Your task to perform on an android device: Open Android settings Image 0: 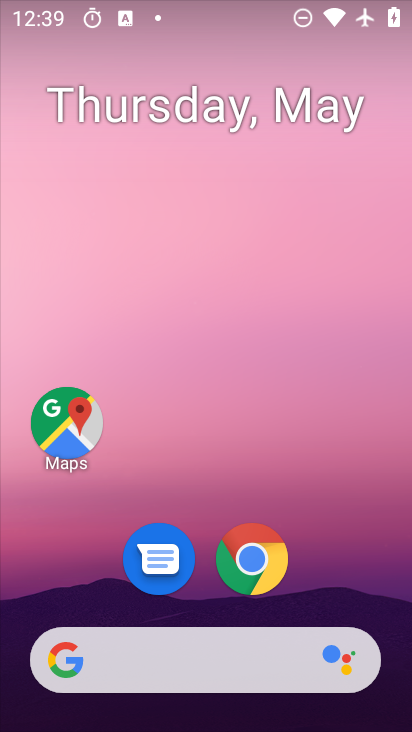
Step 0: drag from (354, 598) to (349, 345)
Your task to perform on an android device: Open Android settings Image 1: 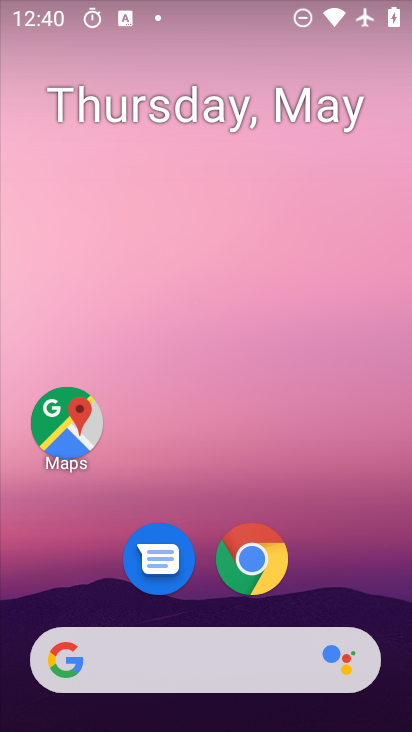
Step 1: drag from (308, 594) to (298, 305)
Your task to perform on an android device: Open Android settings Image 2: 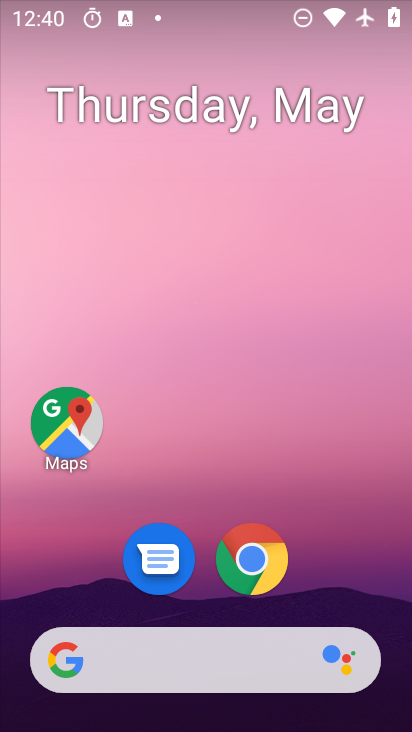
Step 2: drag from (333, 677) to (382, 20)
Your task to perform on an android device: Open Android settings Image 3: 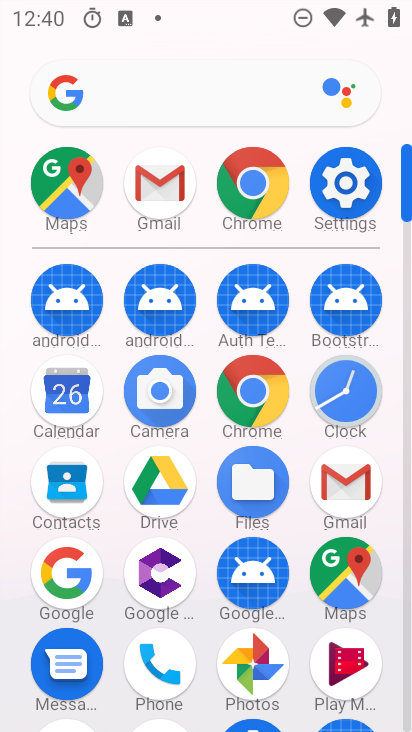
Step 3: click (347, 201)
Your task to perform on an android device: Open Android settings Image 4: 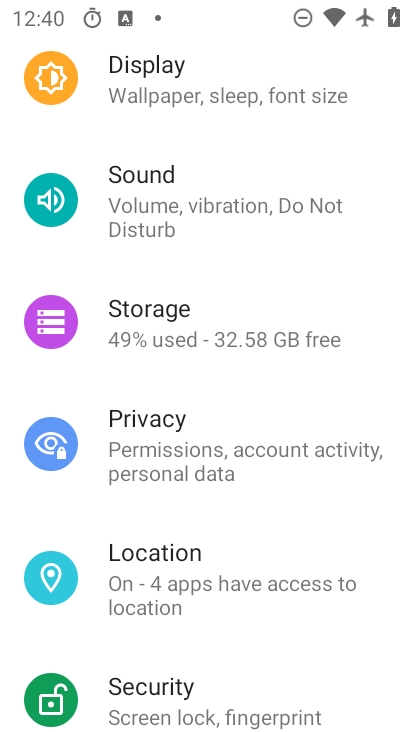
Step 4: drag from (262, 567) to (272, 368)
Your task to perform on an android device: Open Android settings Image 5: 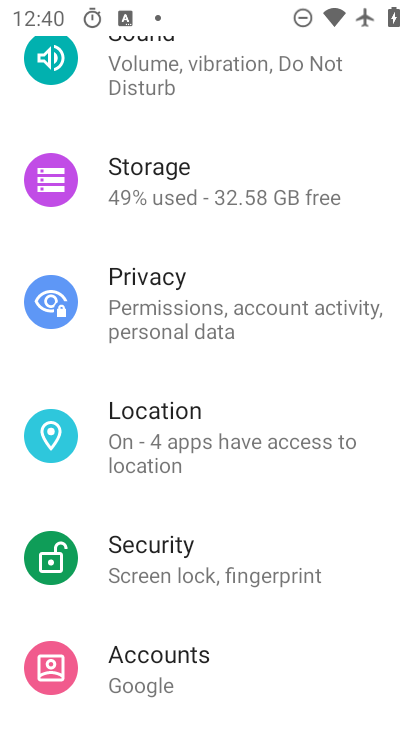
Step 5: drag from (279, 587) to (320, 275)
Your task to perform on an android device: Open Android settings Image 6: 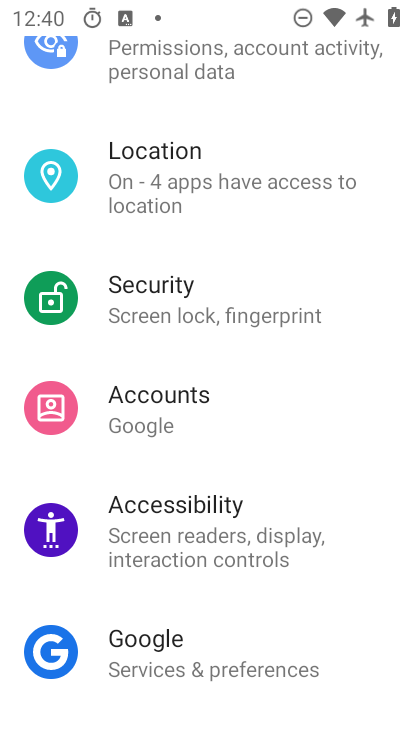
Step 6: drag from (289, 565) to (315, 262)
Your task to perform on an android device: Open Android settings Image 7: 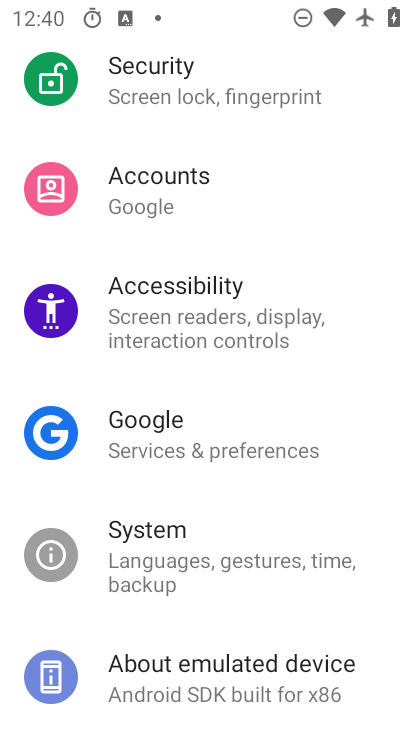
Step 7: drag from (275, 568) to (296, 310)
Your task to perform on an android device: Open Android settings Image 8: 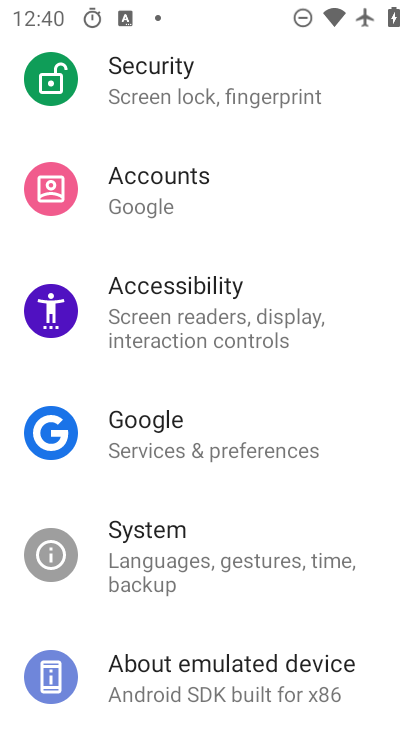
Step 8: click (229, 671)
Your task to perform on an android device: Open Android settings Image 9: 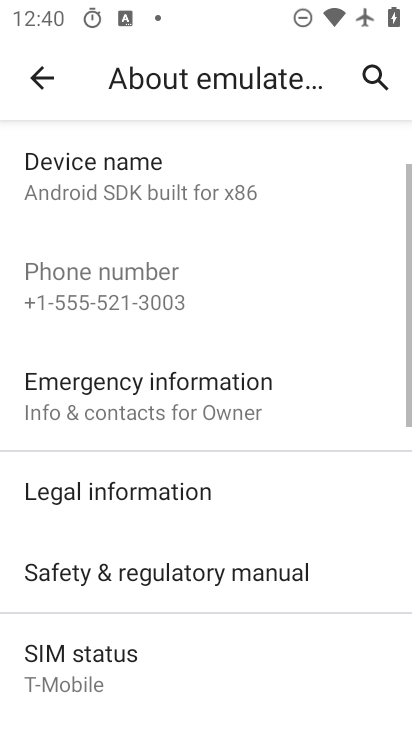
Step 9: drag from (229, 671) to (254, 448)
Your task to perform on an android device: Open Android settings Image 10: 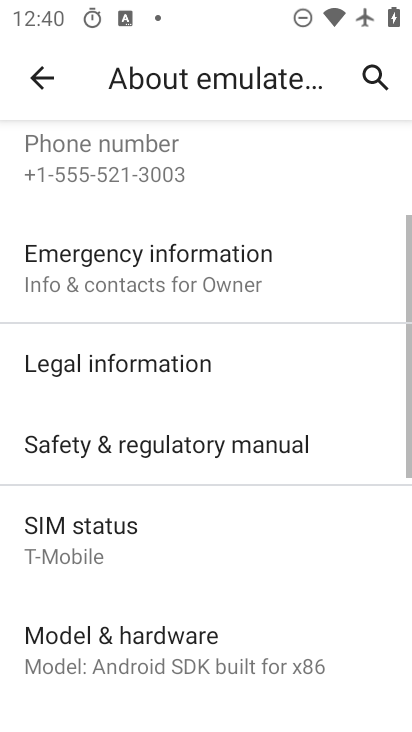
Step 10: drag from (255, 594) to (250, 417)
Your task to perform on an android device: Open Android settings Image 11: 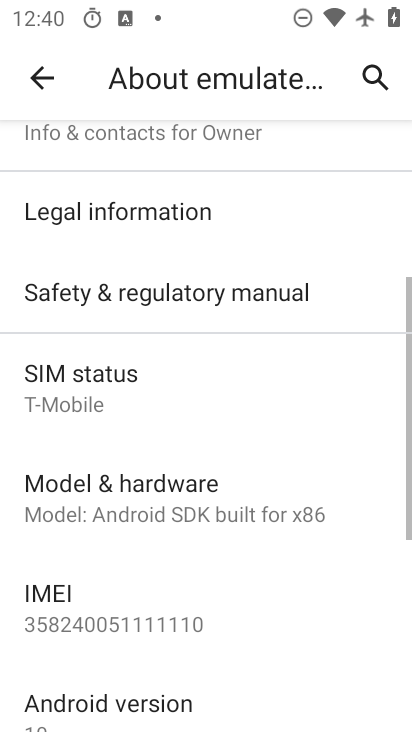
Step 11: drag from (244, 589) to (268, 391)
Your task to perform on an android device: Open Android settings Image 12: 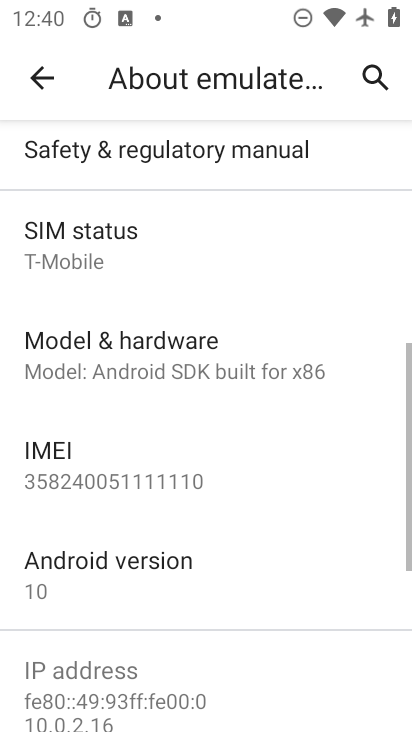
Step 12: drag from (263, 553) to (279, 374)
Your task to perform on an android device: Open Android settings Image 13: 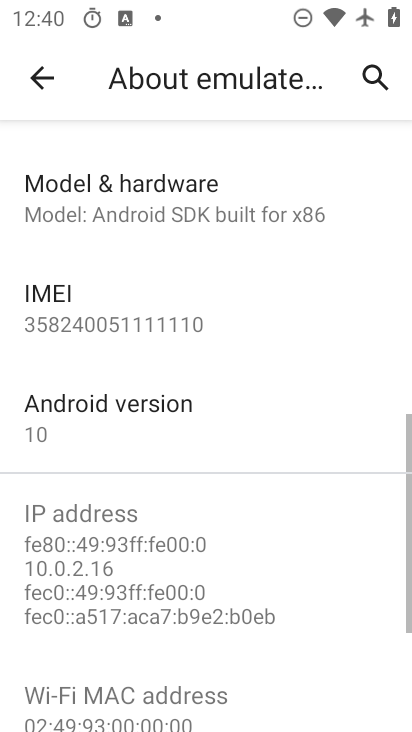
Step 13: click (225, 420)
Your task to perform on an android device: Open Android settings Image 14: 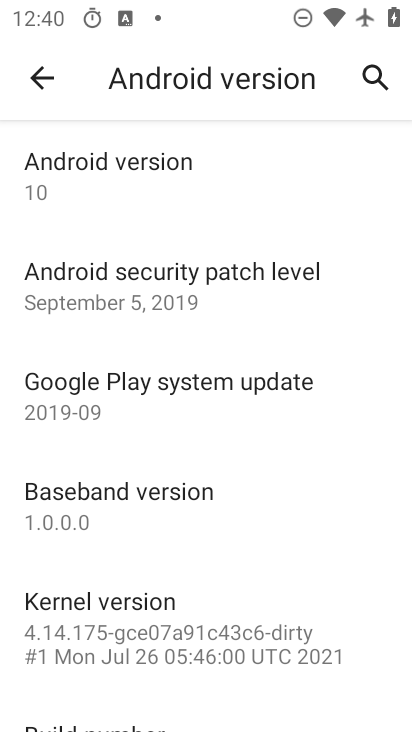
Step 14: task complete